Your task to perform on an android device: What's on my calendar tomorrow? Image 0: 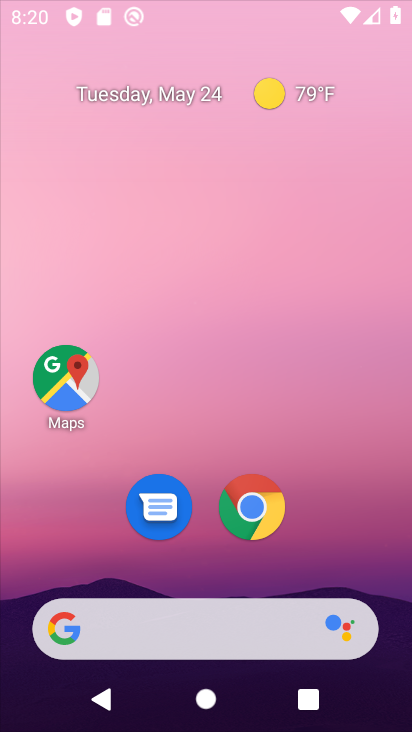
Step 0: press back button
Your task to perform on an android device: What's on my calendar tomorrow? Image 1: 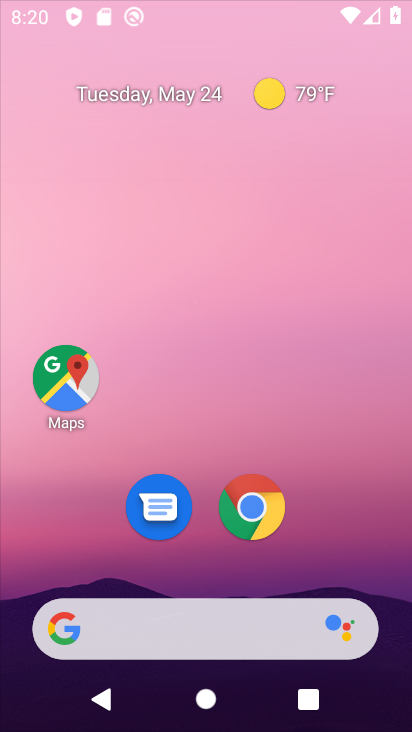
Step 1: click (292, 70)
Your task to perform on an android device: What's on my calendar tomorrow? Image 2: 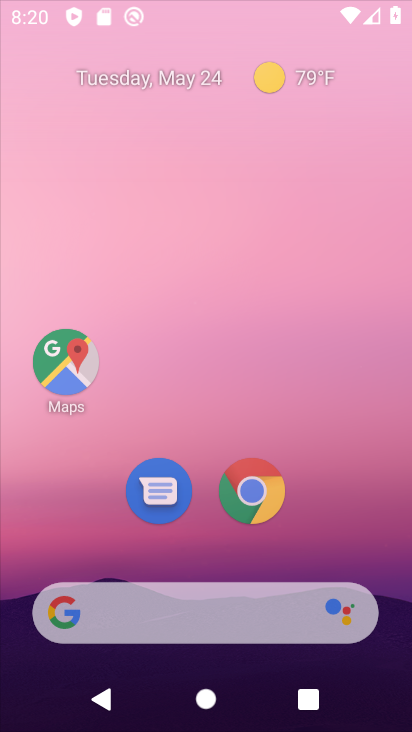
Step 2: click (236, 187)
Your task to perform on an android device: What's on my calendar tomorrow? Image 3: 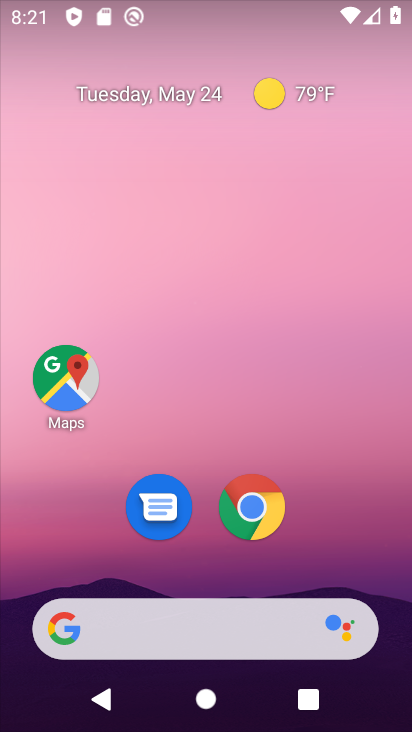
Step 3: drag from (222, 585) to (209, 204)
Your task to perform on an android device: What's on my calendar tomorrow? Image 4: 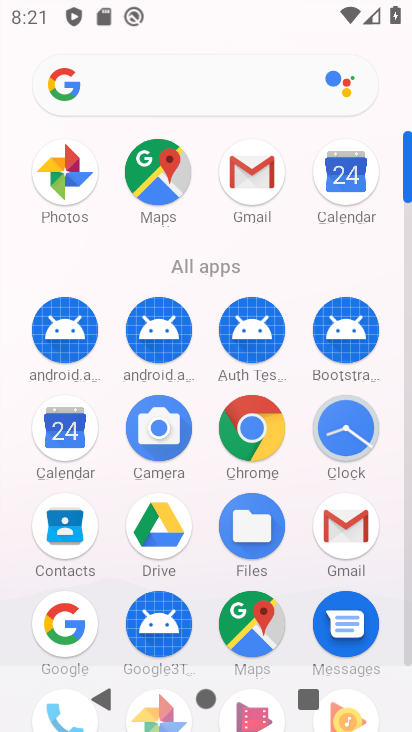
Step 4: click (68, 429)
Your task to perform on an android device: What's on my calendar tomorrow? Image 5: 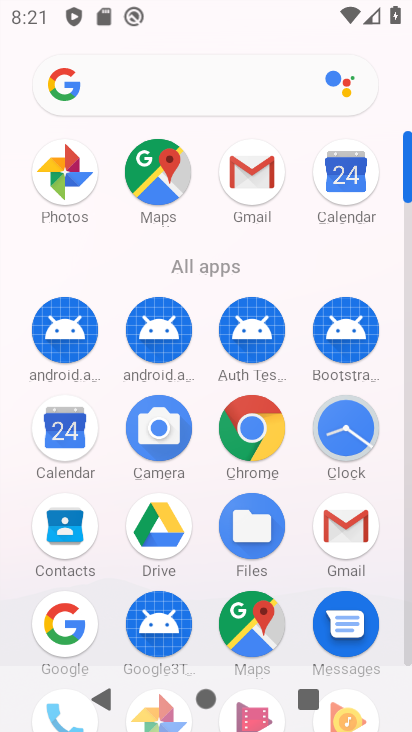
Step 5: click (68, 429)
Your task to perform on an android device: What's on my calendar tomorrow? Image 6: 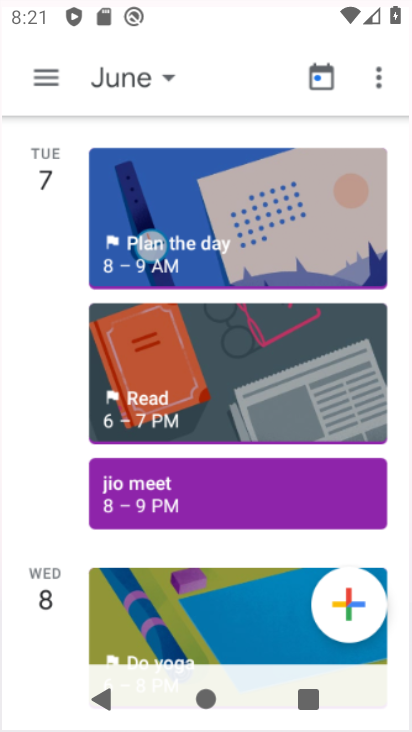
Step 6: click (68, 429)
Your task to perform on an android device: What's on my calendar tomorrow? Image 7: 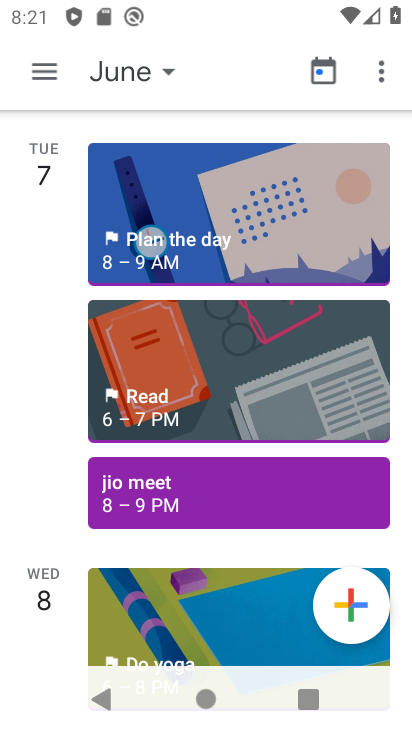
Step 7: press back button
Your task to perform on an android device: What's on my calendar tomorrow? Image 8: 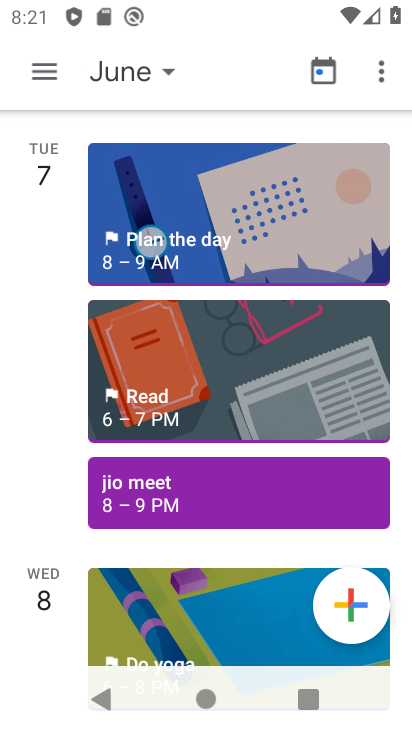
Step 8: press back button
Your task to perform on an android device: What's on my calendar tomorrow? Image 9: 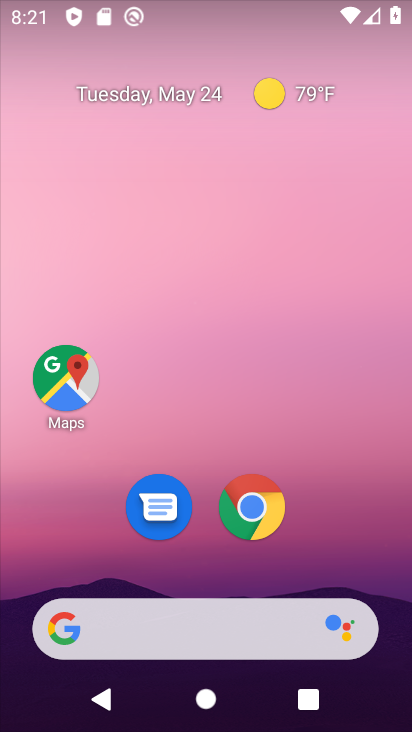
Step 9: drag from (264, 692) to (219, 100)
Your task to perform on an android device: What's on my calendar tomorrow? Image 10: 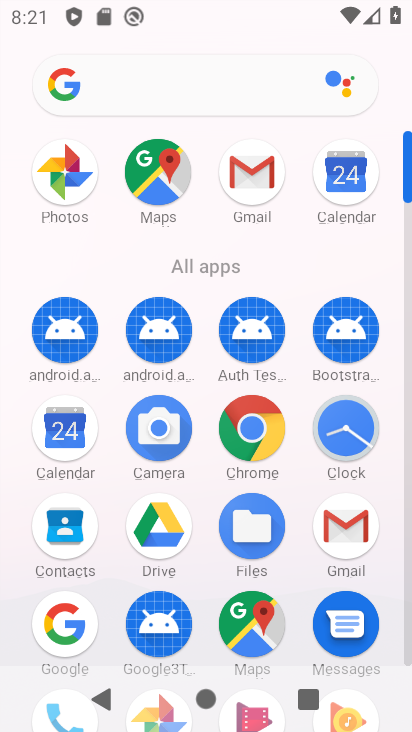
Step 10: drag from (232, 663) to (197, 110)
Your task to perform on an android device: What's on my calendar tomorrow? Image 11: 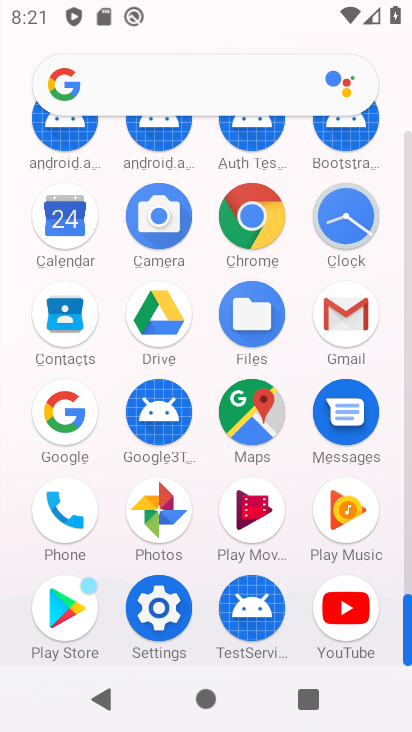
Step 11: click (64, 230)
Your task to perform on an android device: What's on my calendar tomorrow? Image 12: 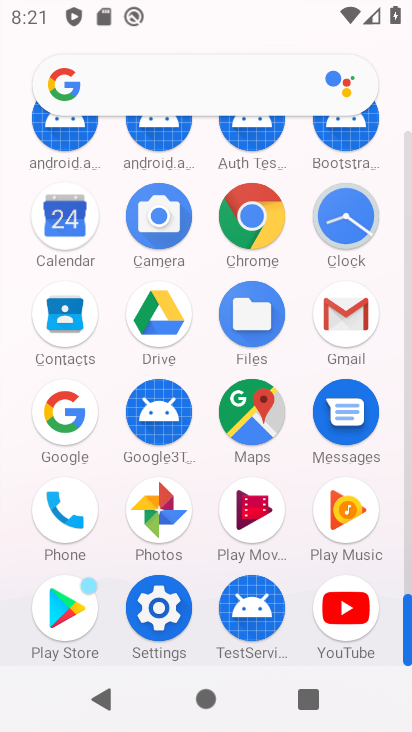
Step 12: click (64, 229)
Your task to perform on an android device: What's on my calendar tomorrow? Image 13: 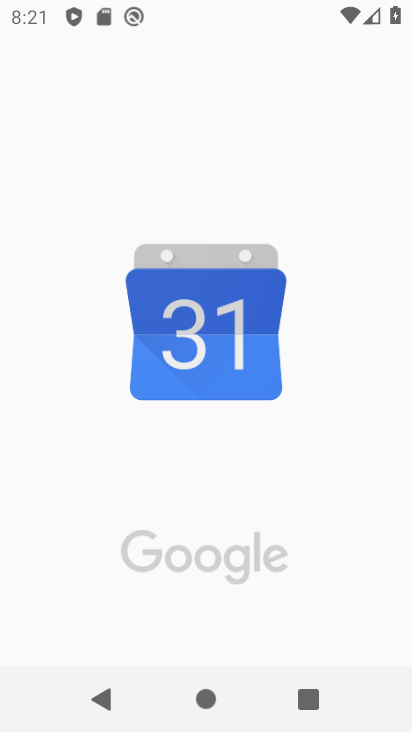
Step 13: click (64, 229)
Your task to perform on an android device: What's on my calendar tomorrow? Image 14: 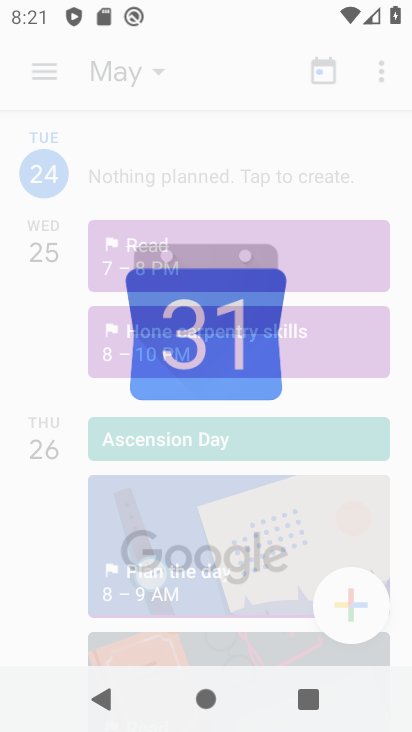
Step 14: click (64, 229)
Your task to perform on an android device: What's on my calendar tomorrow? Image 15: 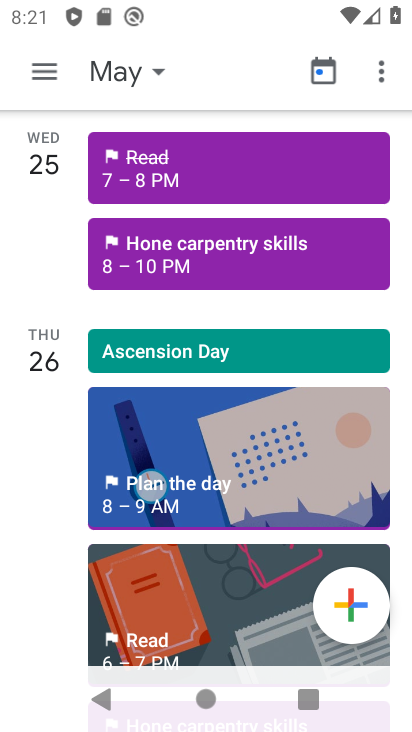
Step 15: click (173, 415)
Your task to perform on an android device: What's on my calendar tomorrow? Image 16: 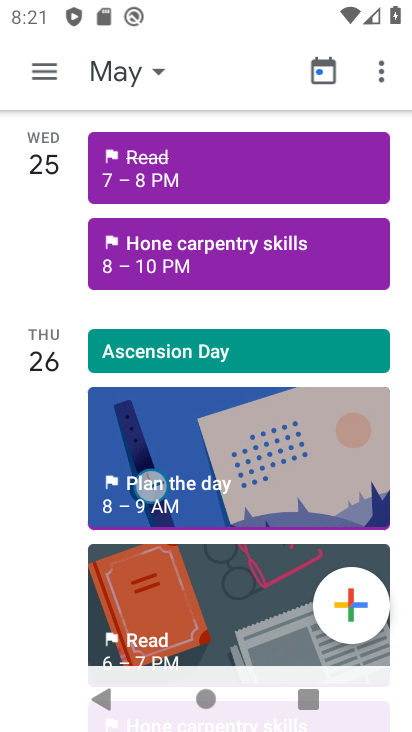
Step 16: click (173, 417)
Your task to perform on an android device: What's on my calendar tomorrow? Image 17: 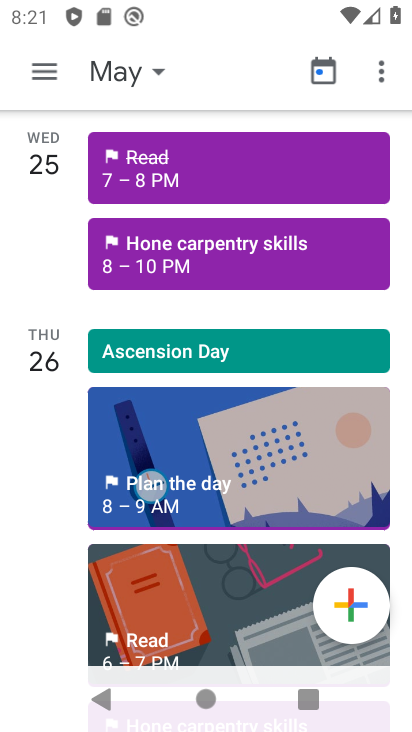
Step 17: task complete